Your task to perform on an android device: Show the shopping cart on bestbuy.com. Image 0: 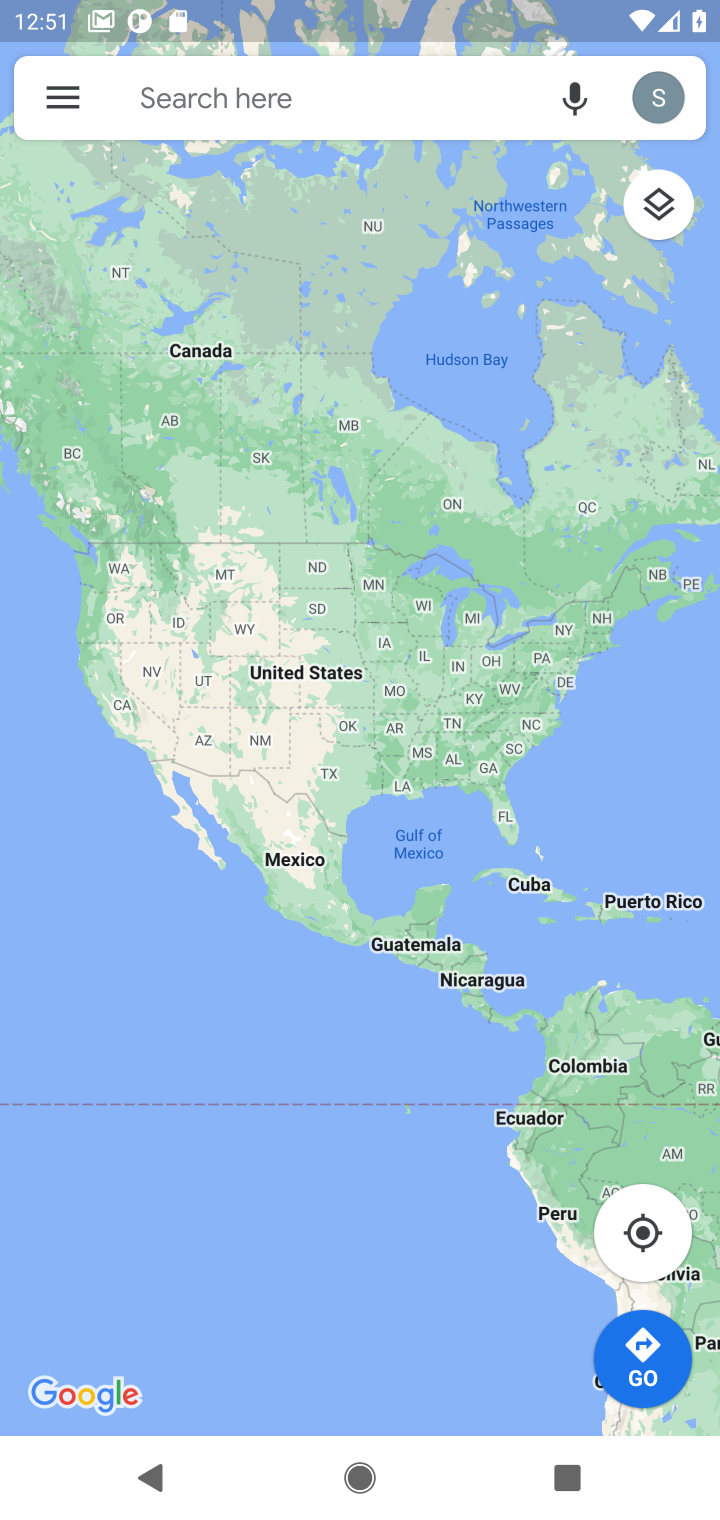
Step 0: press home button
Your task to perform on an android device: Show the shopping cart on bestbuy.com. Image 1: 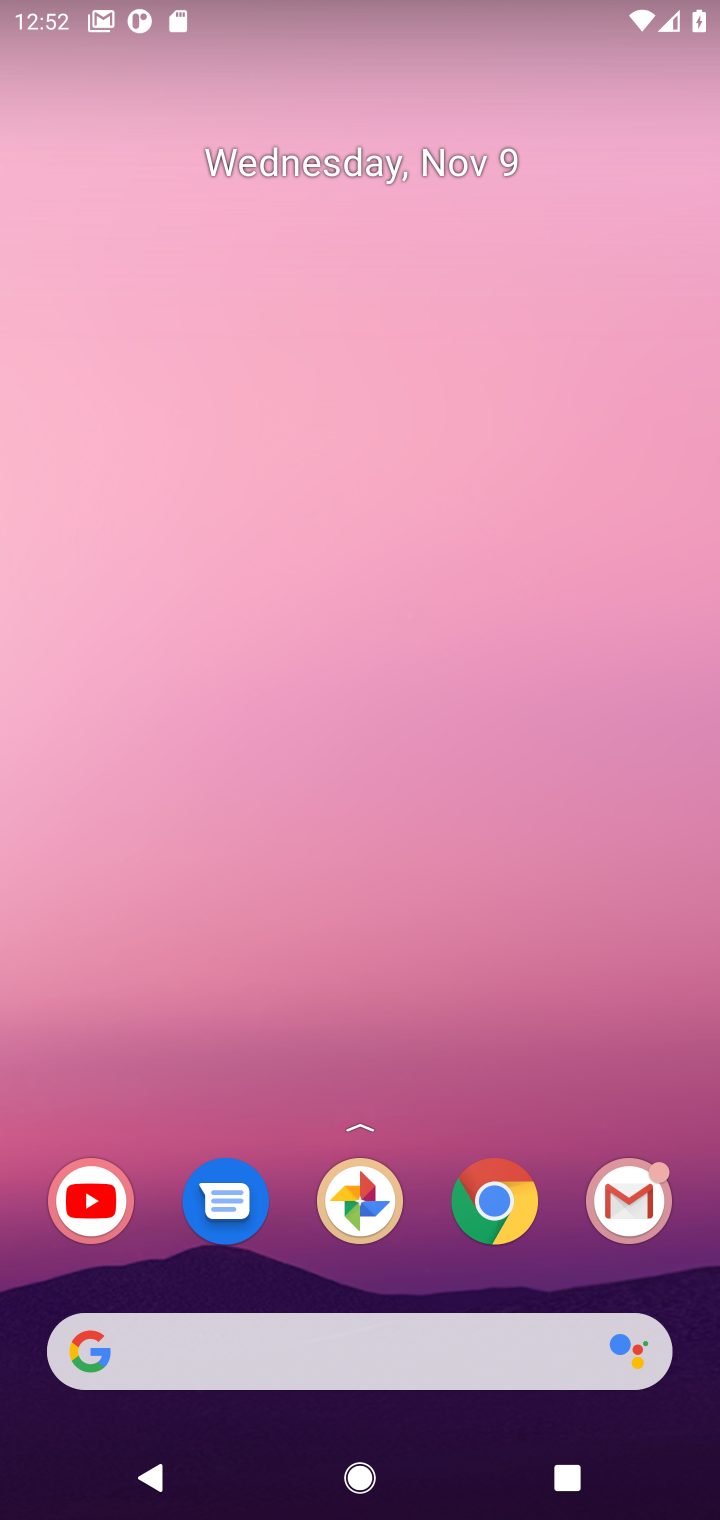
Step 1: click (370, 1355)
Your task to perform on an android device: Show the shopping cart on bestbuy.com. Image 2: 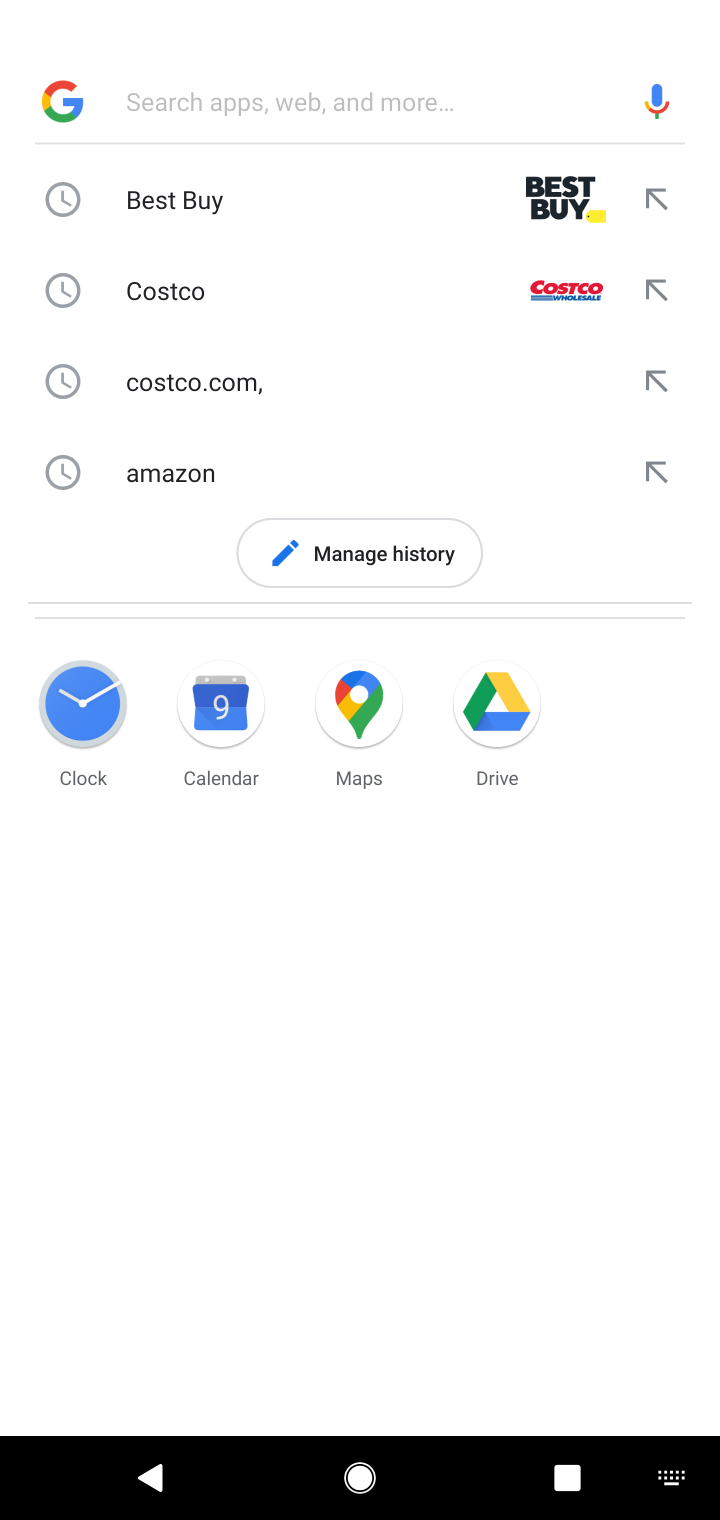
Step 2: click (388, 188)
Your task to perform on an android device: Show the shopping cart on bestbuy.com. Image 3: 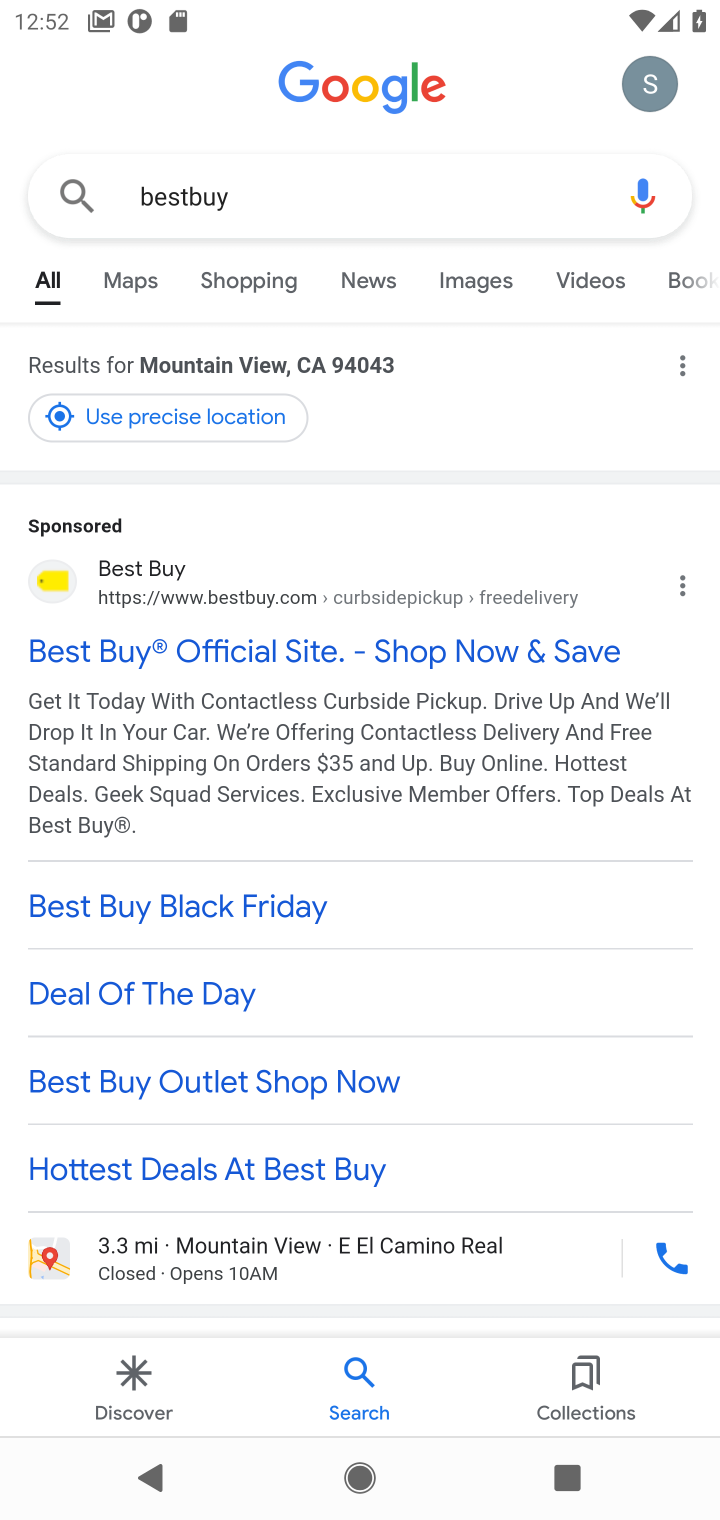
Step 3: click (208, 645)
Your task to perform on an android device: Show the shopping cart on bestbuy.com. Image 4: 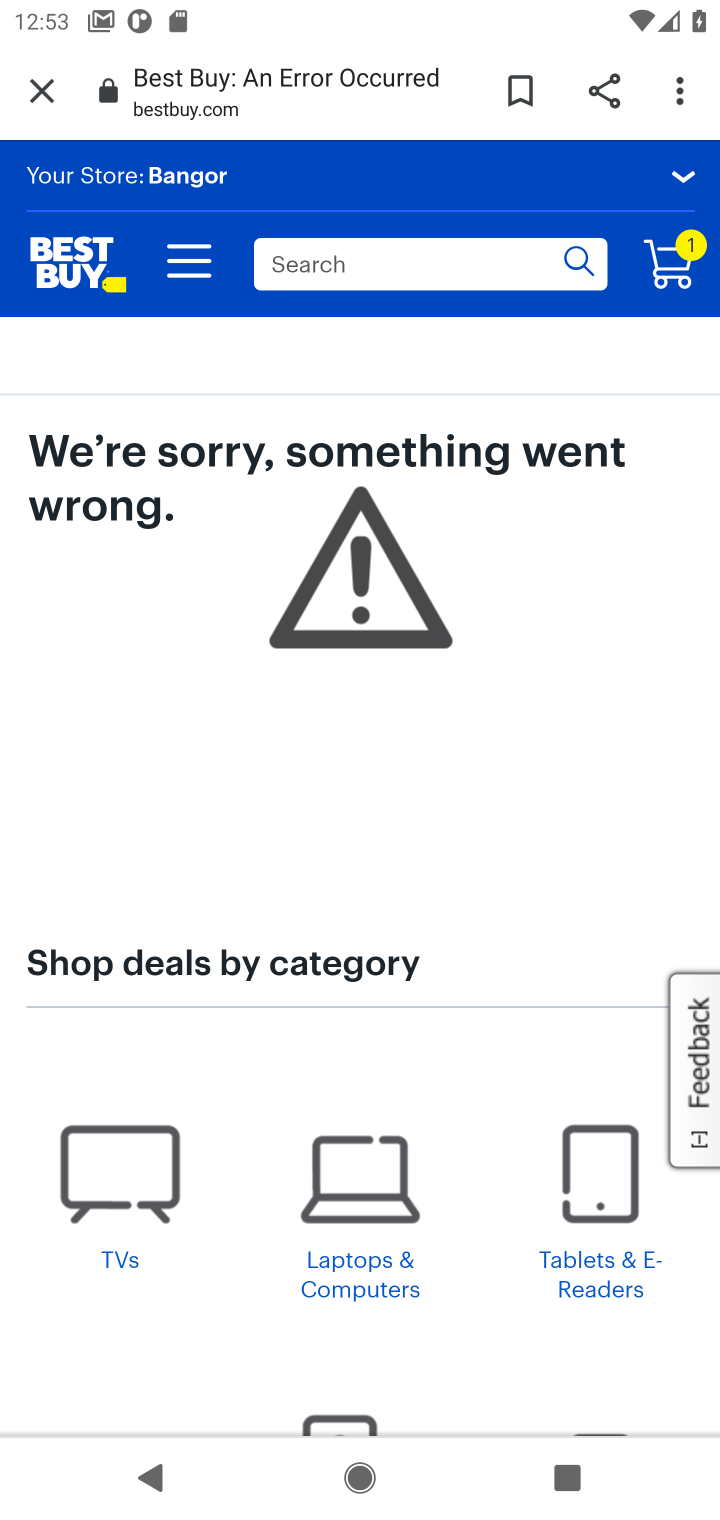
Step 4: drag from (437, 1268) to (437, 579)
Your task to perform on an android device: Show the shopping cart on bestbuy.com. Image 5: 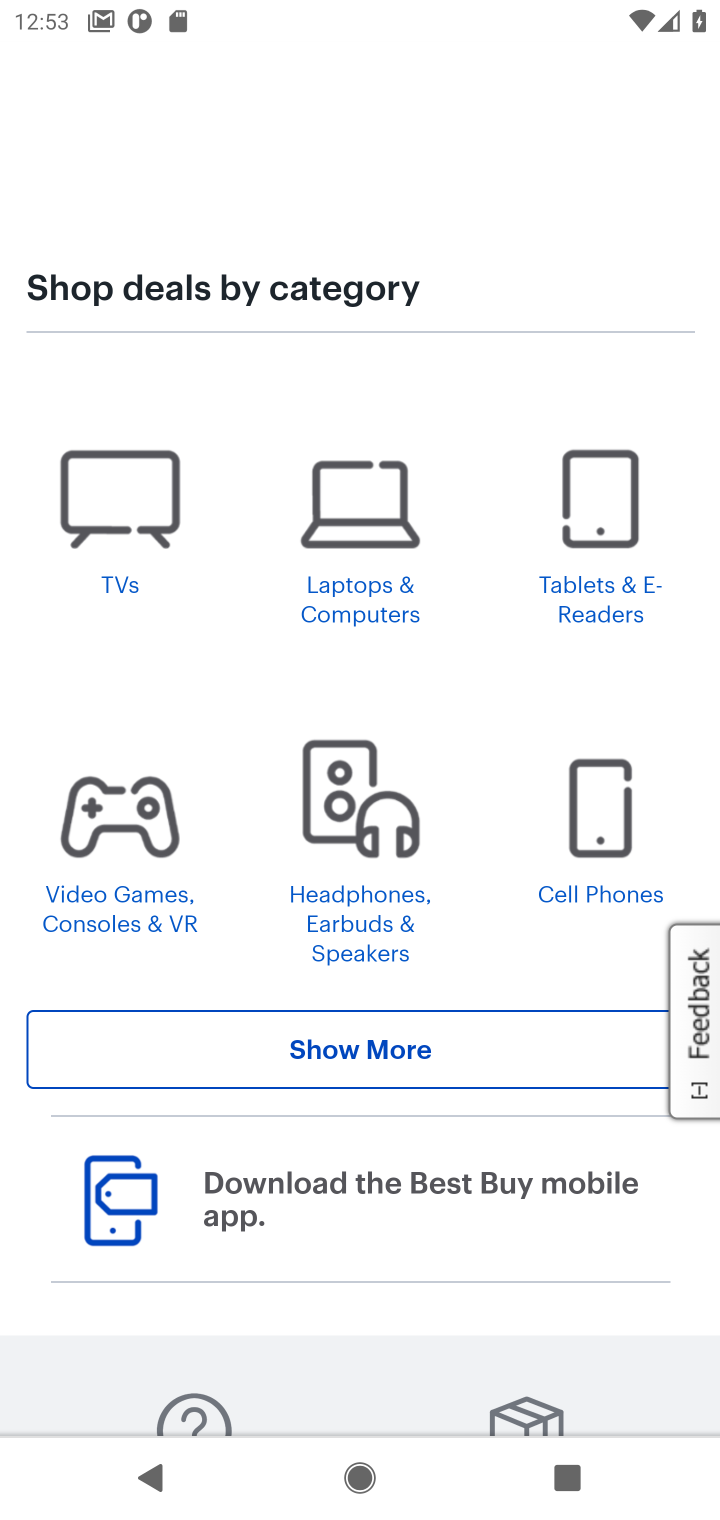
Step 5: drag from (470, 413) to (403, 1210)
Your task to perform on an android device: Show the shopping cart on bestbuy.com. Image 6: 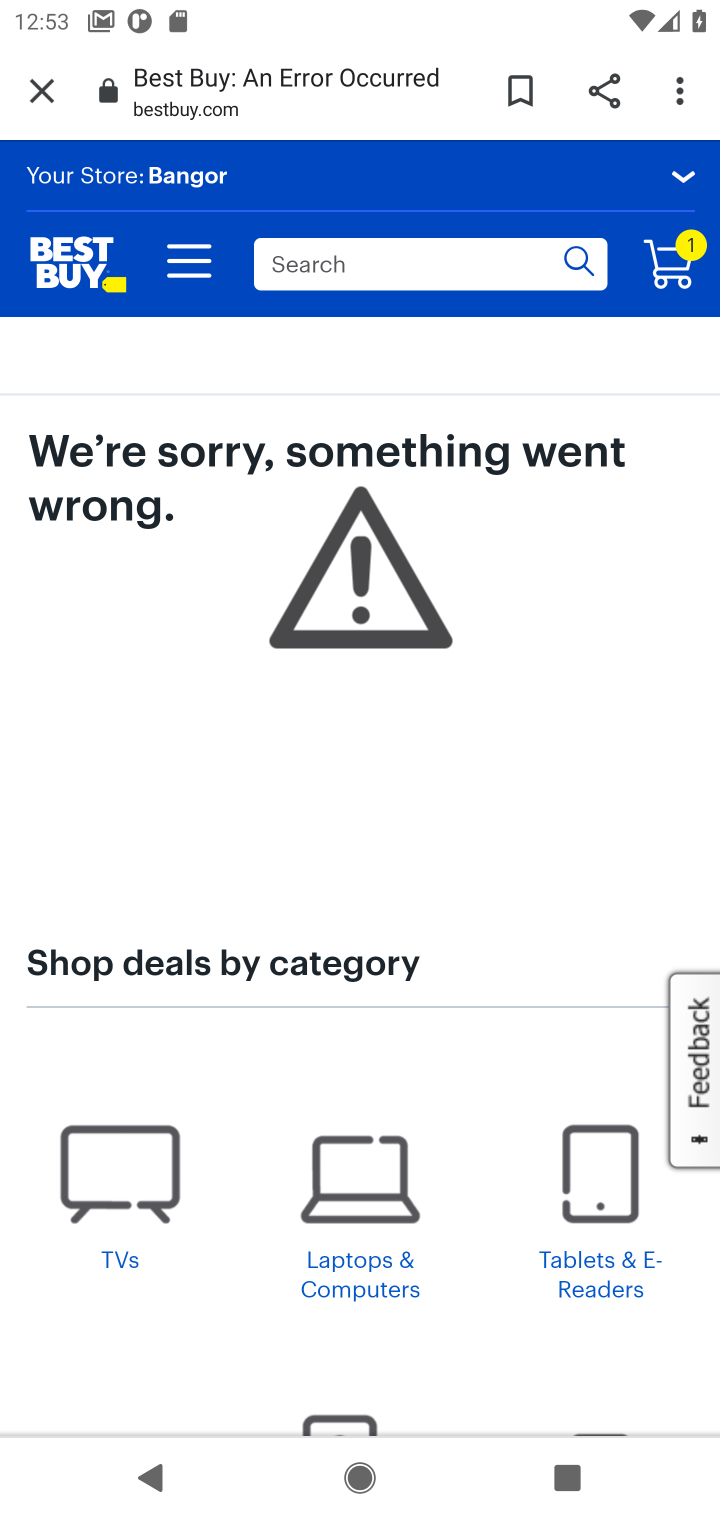
Step 6: click (673, 266)
Your task to perform on an android device: Show the shopping cart on bestbuy.com. Image 7: 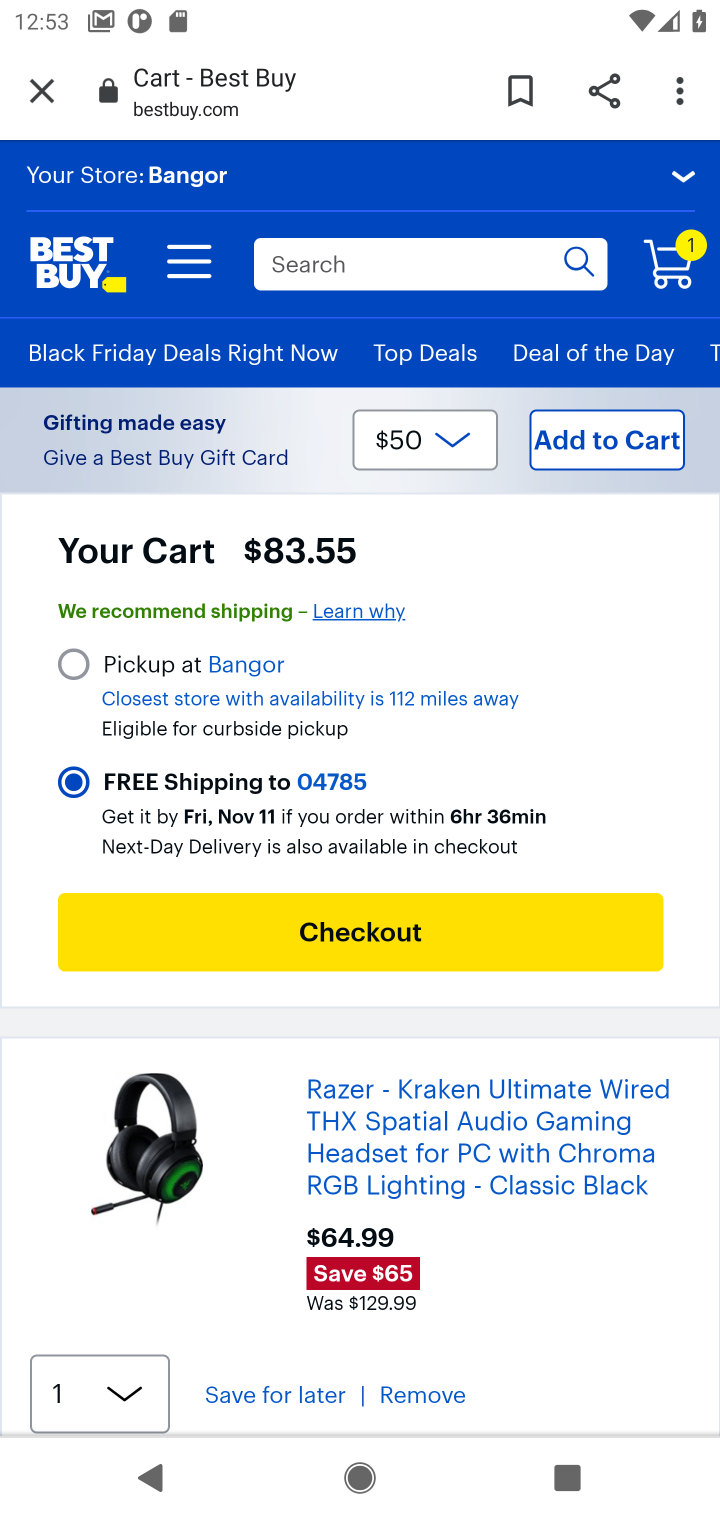
Step 7: click (673, 266)
Your task to perform on an android device: Show the shopping cart on bestbuy.com. Image 8: 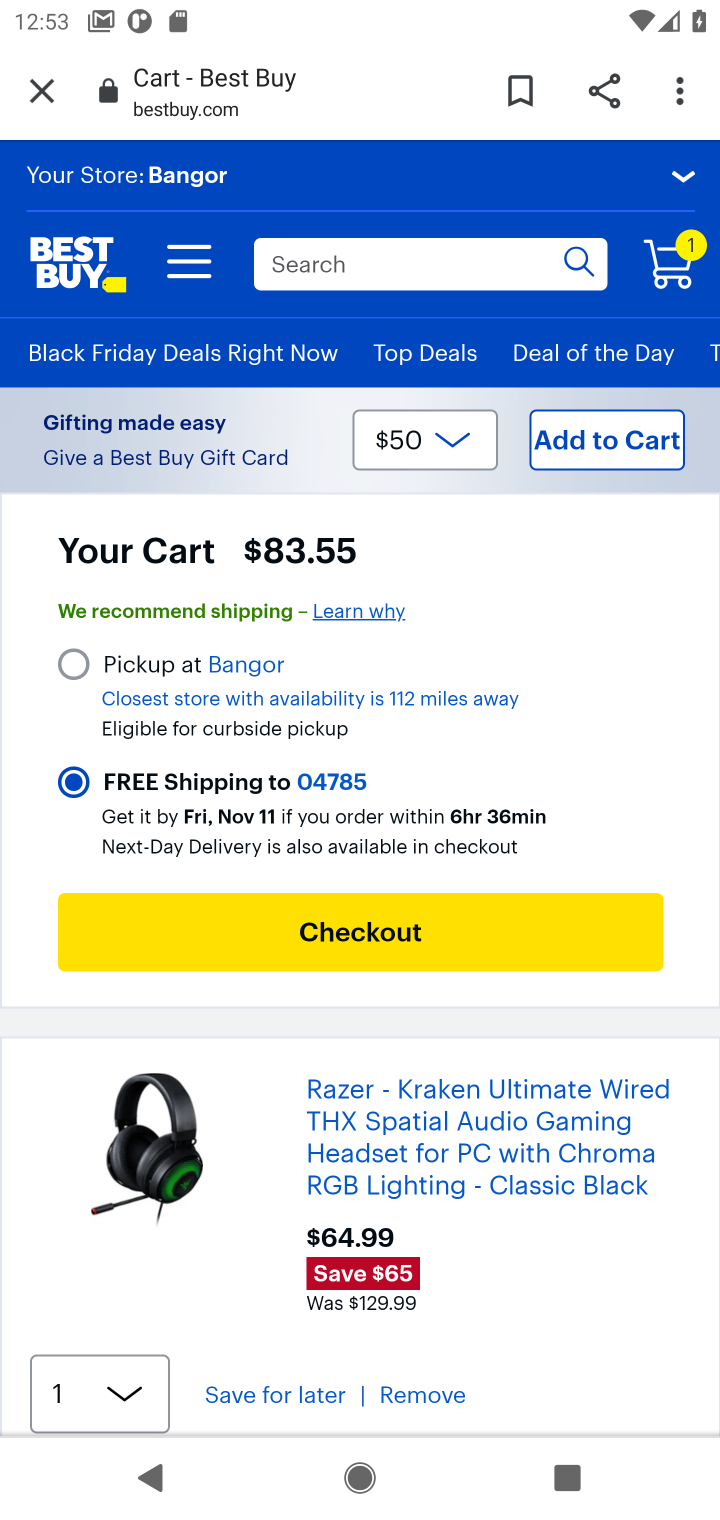
Step 8: click (673, 266)
Your task to perform on an android device: Show the shopping cart on bestbuy.com. Image 9: 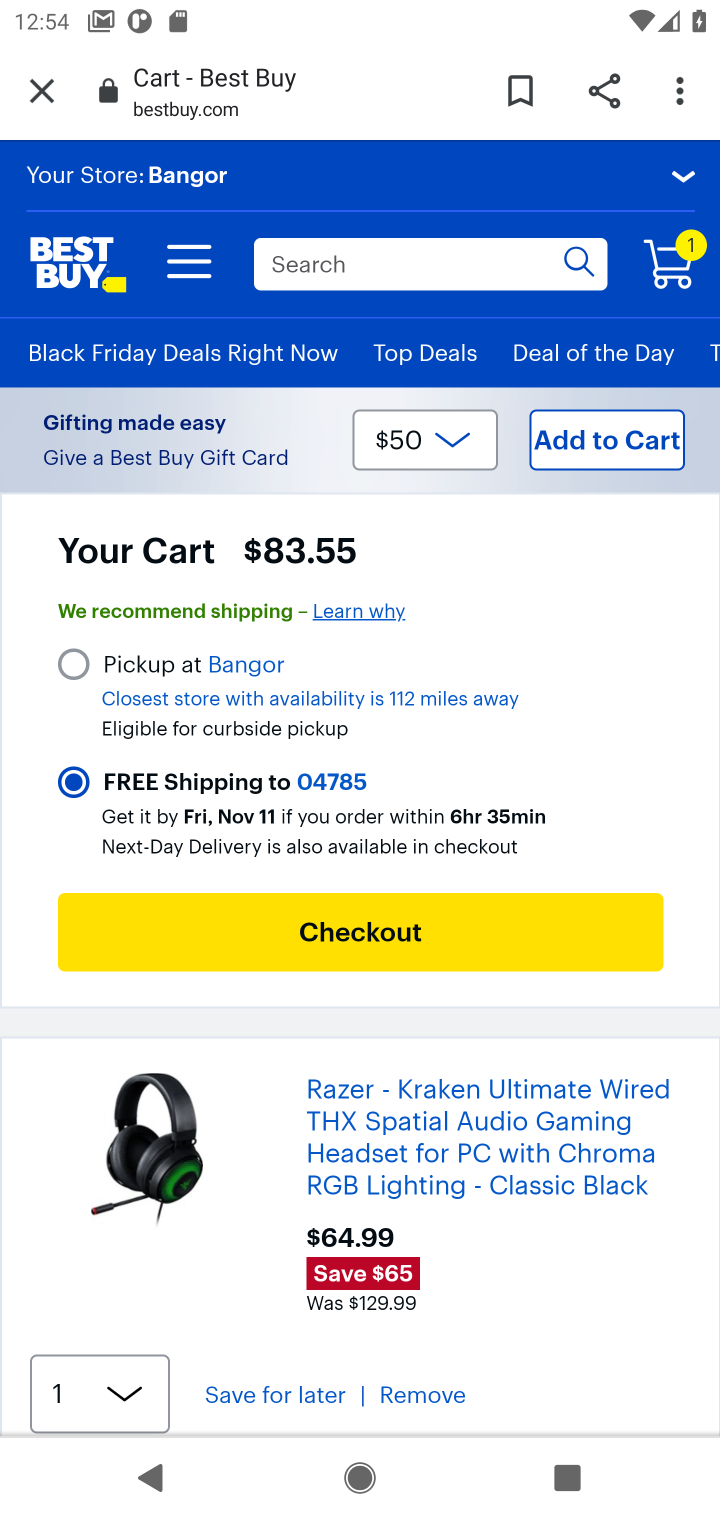
Step 9: click (673, 266)
Your task to perform on an android device: Show the shopping cart on bestbuy.com. Image 10: 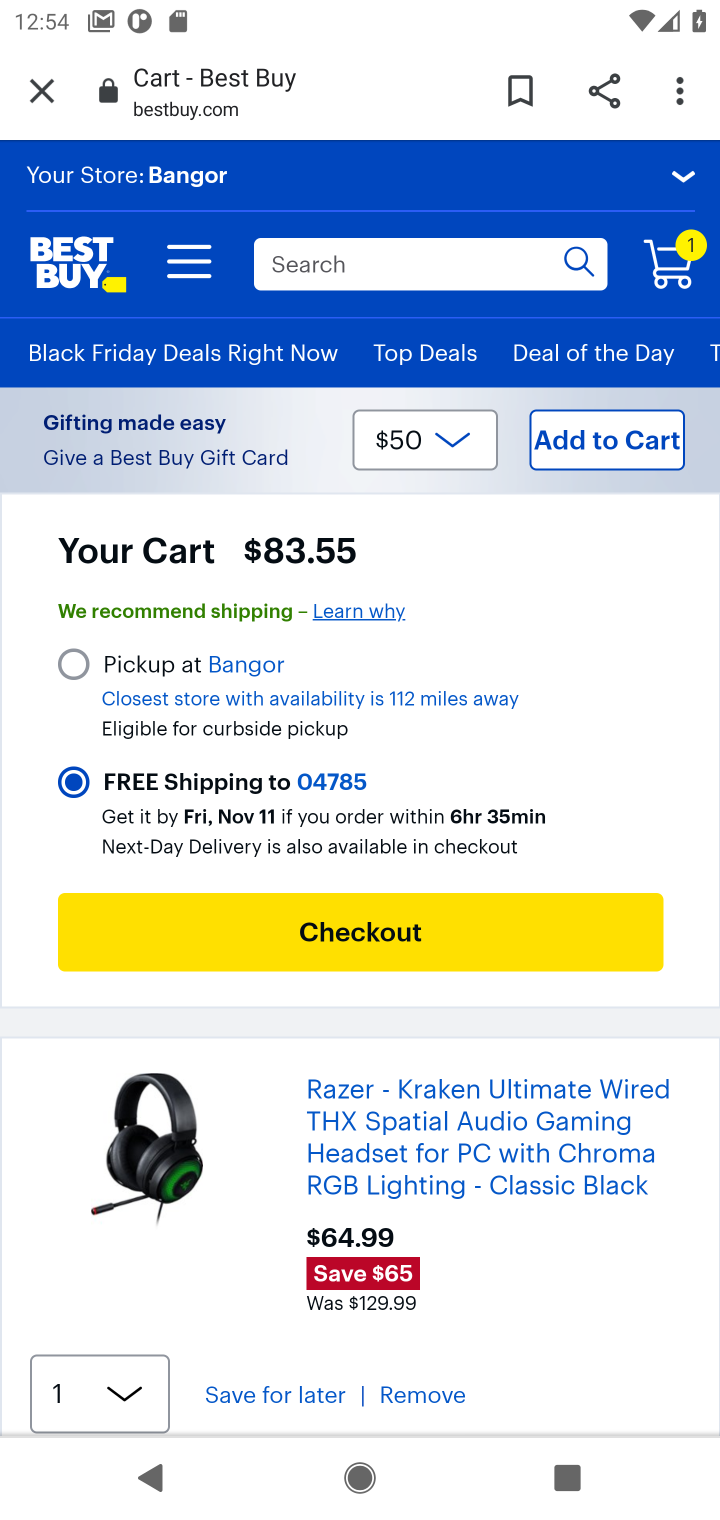
Step 10: task complete